Your task to perform on an android device: Turn off the flashlight Image 0: 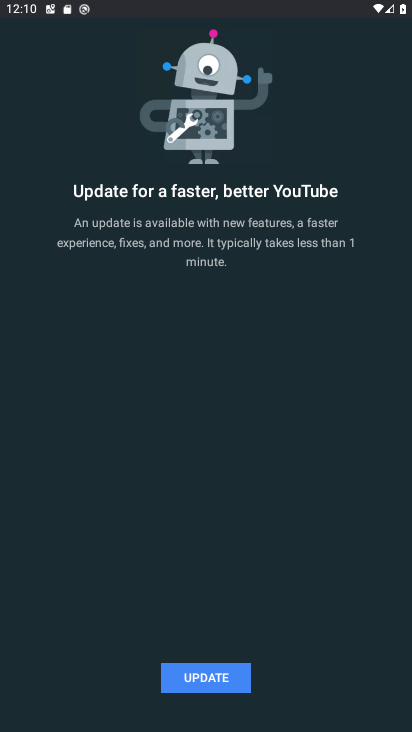
Step 0: press home button
Your task to perform on an android device: Turn off the flashlight Image 1: 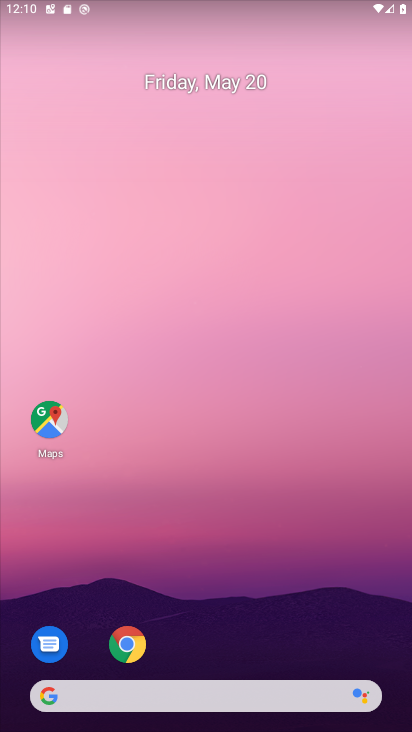
Step 1: drag from (159, 21) to (218, 502)
Your task to perform on an android device: Turn off the flashlight Image 2: 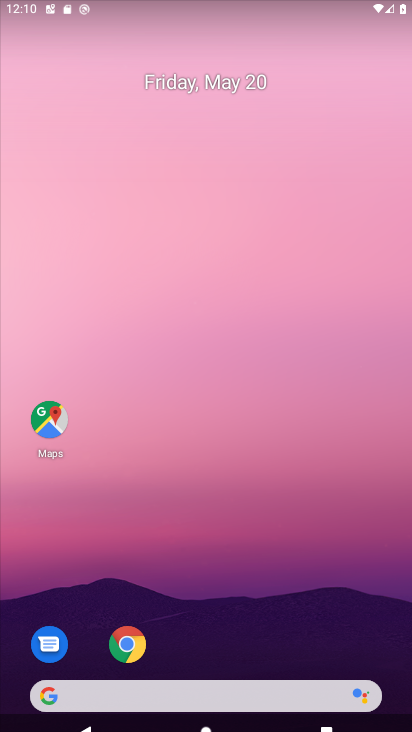
Step 2: drag from (228, 39) to (209, 510)
Your task to perform on an android device: Turn off the flashlight Image 3: 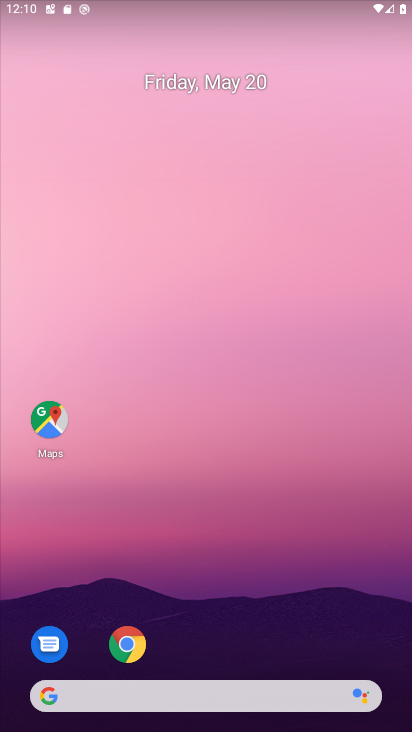
Step 3: drag from (354, 62) to (357, 455)
Your task to perform on an android device: Turn off the flashlight Image 4: 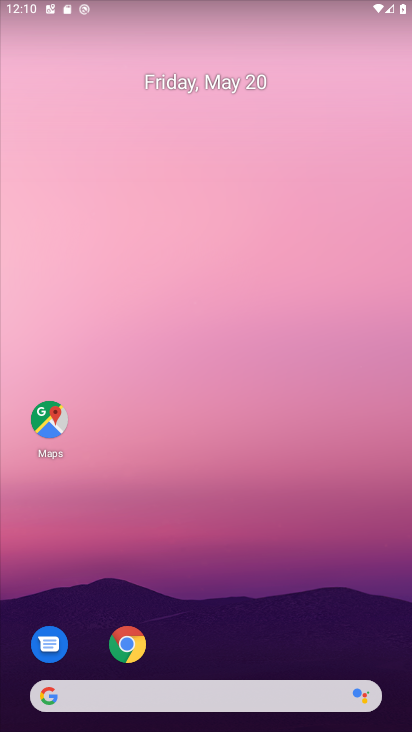
Step 4: drag from (233, 24) to (258, 521)
Your task to perform on an android device: Turn off the flashlight Image 5: 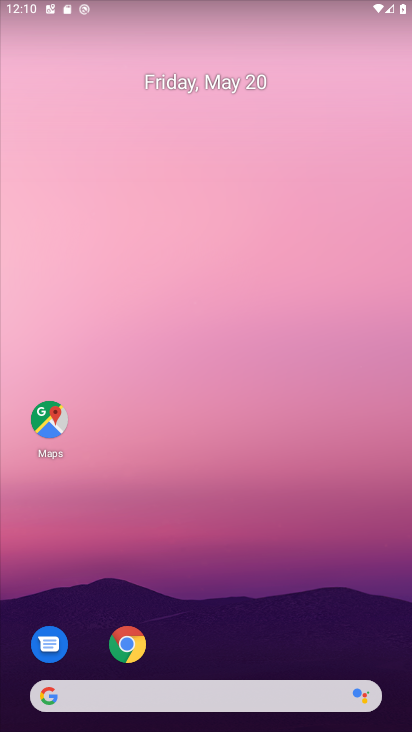
Step 5: drag from (234, 5) to (188, 606)
Your task to perform on an android device: Turn off the flashlight Image 6: 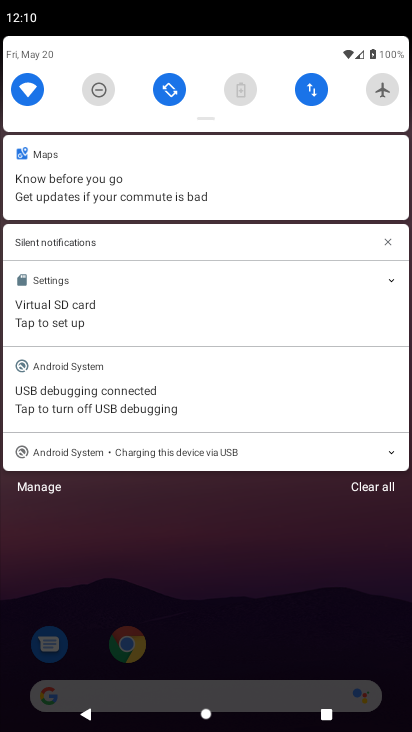
Step 6: drag from (187, 112) to (218, 501)
Your task to perform on an android device: Turn off the flashlight Image 7: 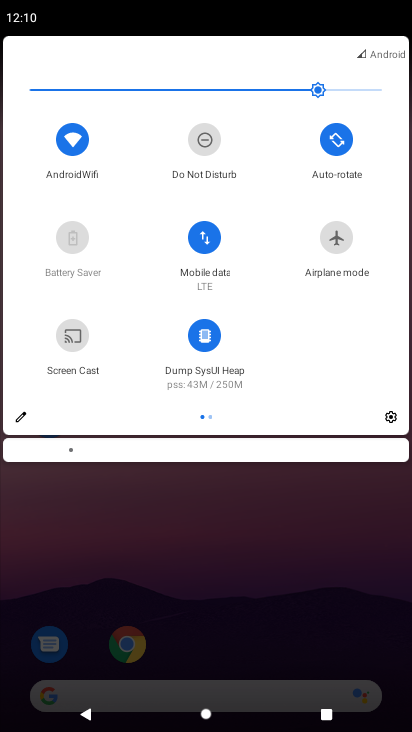
Step 7: drag from (345, 310) to (1, 392)
Your task to perform on an android device: Turn off the flashlight Image 8: 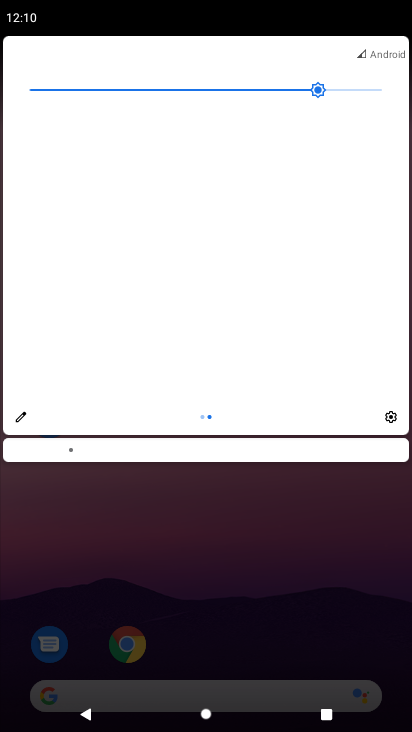
Step 8: click (26, 417)
Your task to perform on an android device: Turn off the flashlight Image 9: 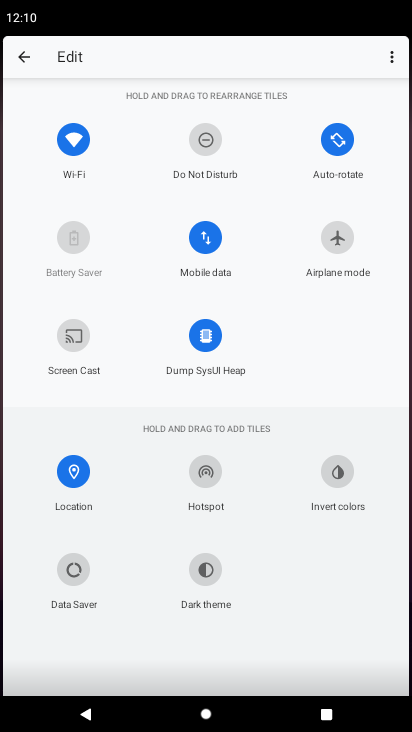
Step 9: task complete